Your task to perform on an android device: uninstall "Indeed Job Search" Image 0: 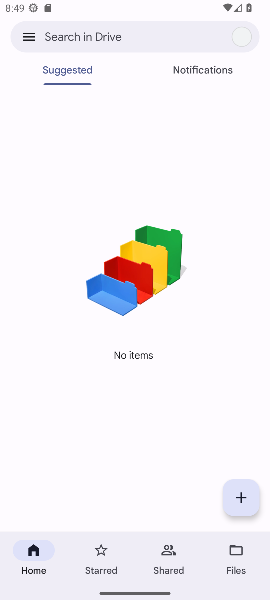
Step 0: drag from (134, 441) to (133, 218)
Your task to perform on an android device: uninstall "Indeed Job Search" Image 1: 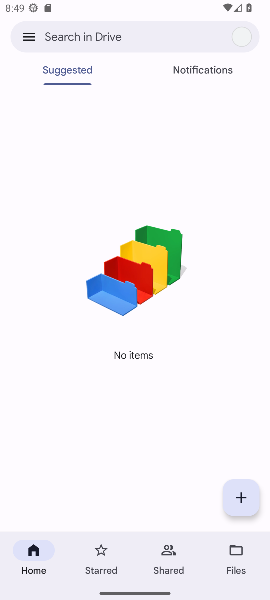
Step 1: press home button
Your task to perform on an android device: uninstall "Indeed Job Search" Image 2: 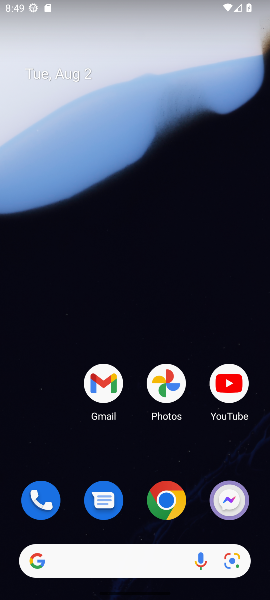
Step 2: drag from (161, 499) to (119, 140)
Your task to perform on an android device: uninstall "Indeed Job Search" Image 3: 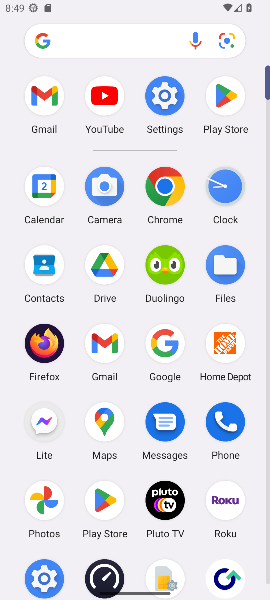
Step 3: click (227, 102)
Your task to perform on an android device: uninstall "Indeed Job Search" Image 4: 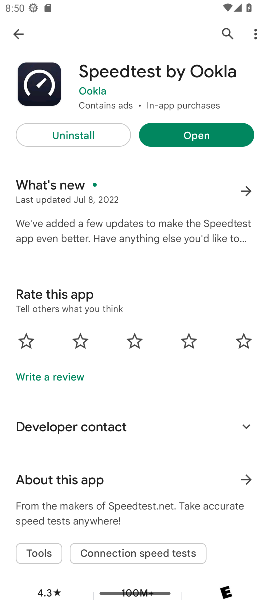
Step 4: click (224, 31)
Your task to perform on an android device: uninstall "Indeed Job Search" Image 5: 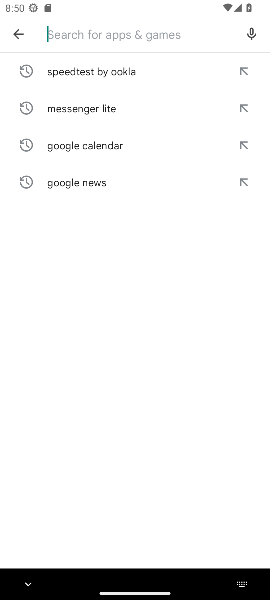
Step 5: type "Indeed Job Search"
Your task to perform on an android device: uninstall "Indeed Job Search" Image 6: 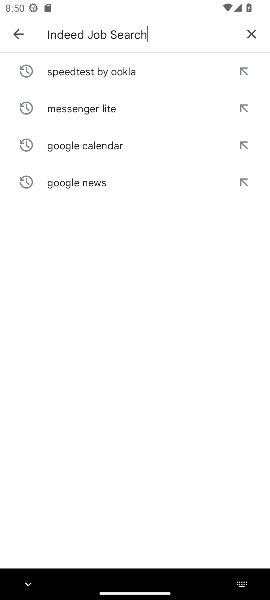
Step 6: type ""
Your task to perform on an android device: uninstall "Indeed Job Search" Image 7: 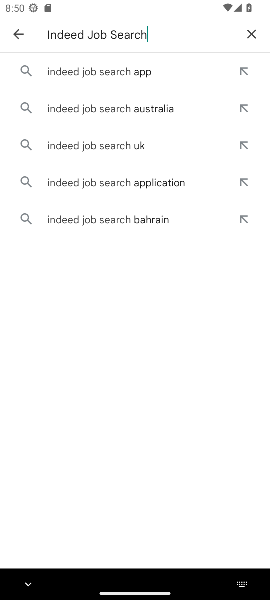
Step 7: click (104, 73)
Your task to perform on an android device: uninstall "Indeed Job Search" Image 8: 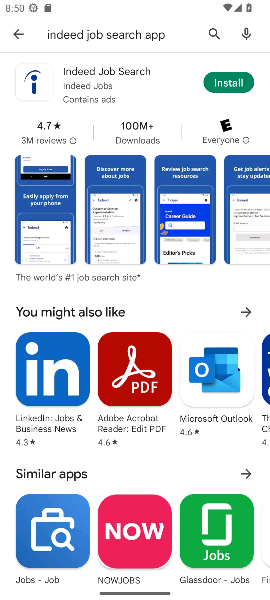
Step 8: click (132, 87)
Your task to perform on an android device: uninstall "Indeed Job Search" Image 9: 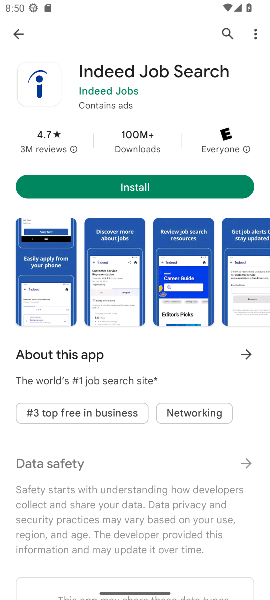
Step 9: task complete